Your task to perform on an android device: toggle priority inbox in the gmail app Image 0: 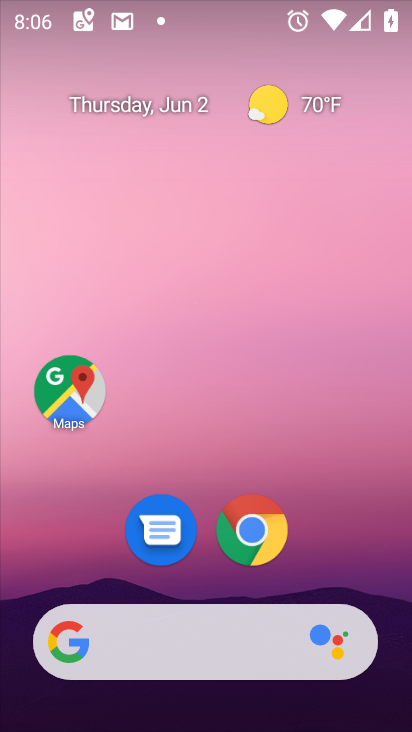
Step 0: drag from (181, 615) to (190, 312)
Your task to perform on an android device: toggle priority inbox in the gmail app Image 1: 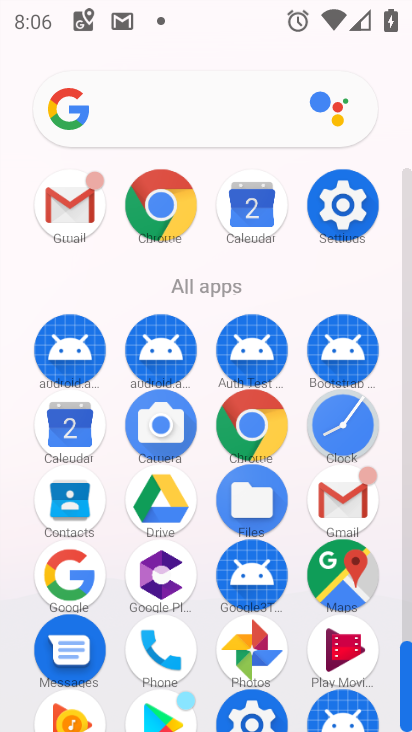
Step 1: click (78, 209)
Your task to perform on an android device: toggle priority inbox in the gmail app Image 2: 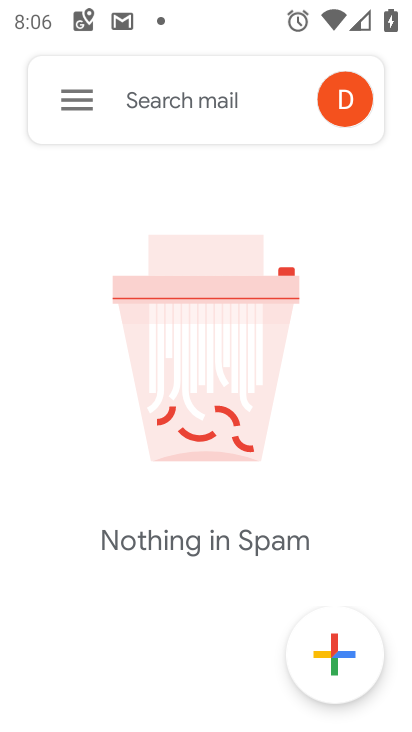
Step 2: click (68, 89)
Your task to perform on an android device: toggle priority inbox in the gmail app Image 3: 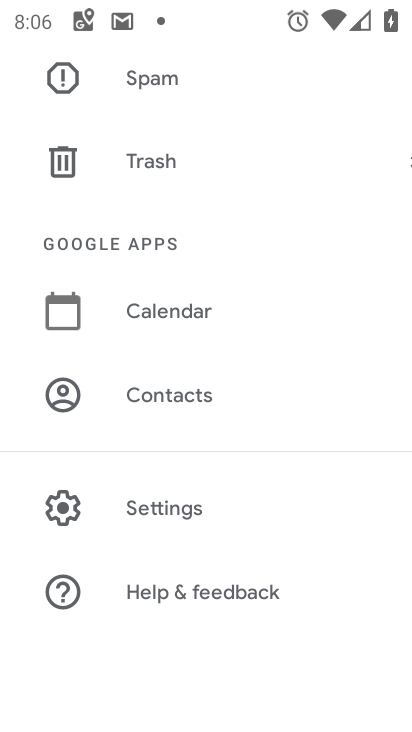
Step 3: click (121, 513)
Your task to perform on an android device: toggle priority inbox in the gmail app Image 4: 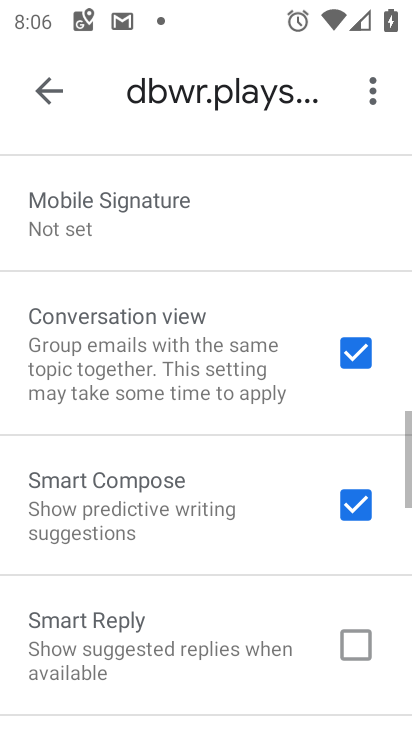
Step 4: drag from (180, 219) to (182, 730)
Your task to perform on an android device: toggle priority inbox in the gmail app Image 5: 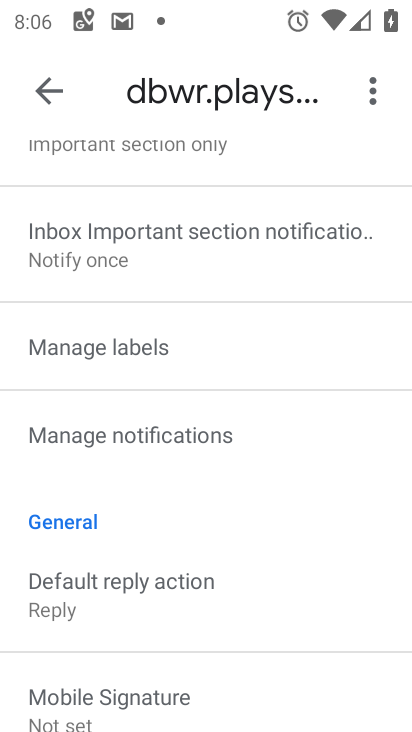
Step 5: drag from (196, 184) to (182, 558)
Your task to perform on an android device: toggle priority inbox in the gmail app Image 6: 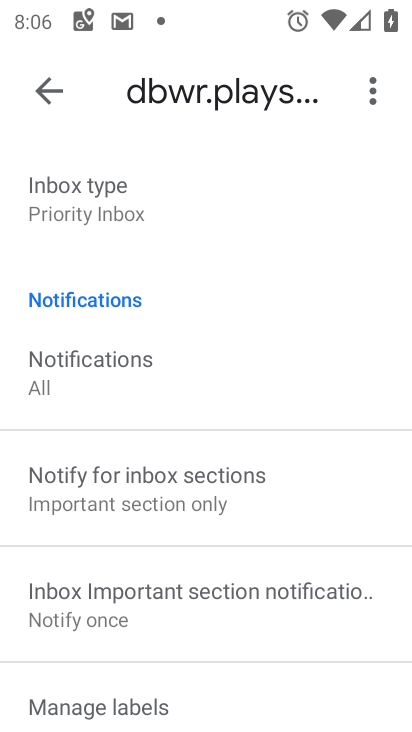
Step 6: click (61, 211)
Your task to perform on an android device: toggle priority inbox in the gmail app Image 7: 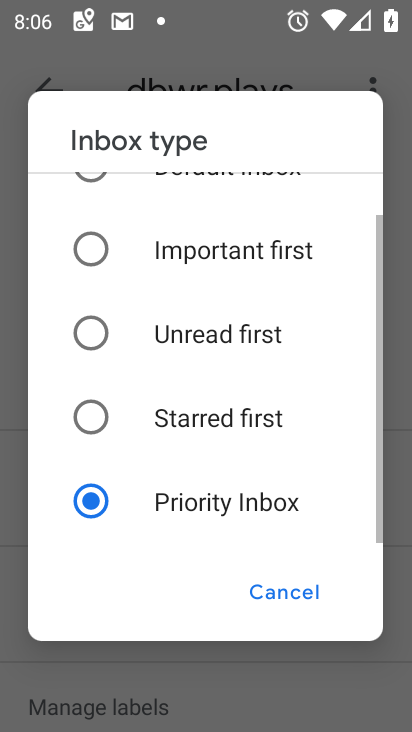
Step 7: click (179, 250)
Your task to perform on an android device: toggle priority inbox in the gmail app Image 8: 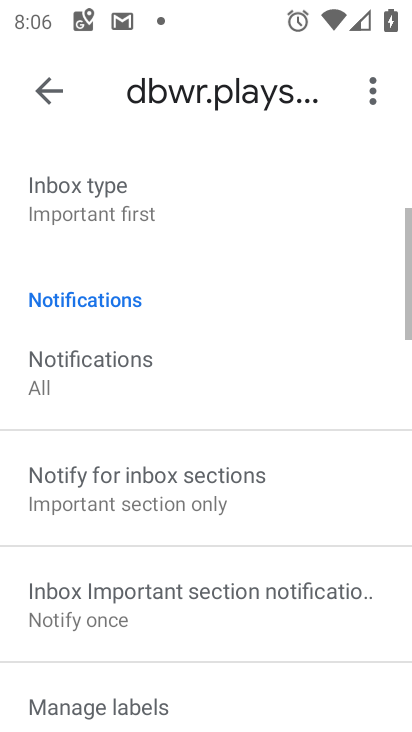
Step 8: task complete